Your task to perform on an android device: Search for a custom made wallet Image 0: 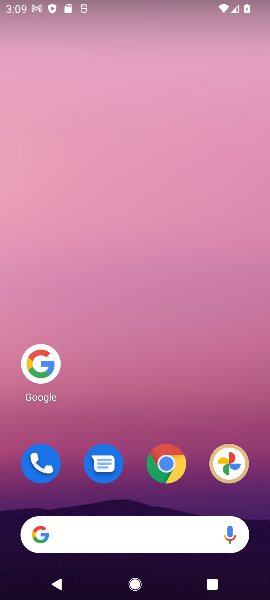
Step 0: click (42, 356)
Your task to perform on an android device: Search for a custom made wallet Image 1: 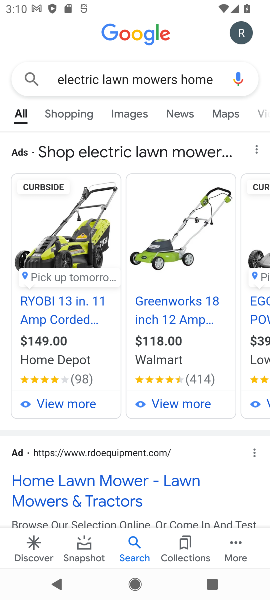
Step 1: click (196, 71)
Your task to perform on an android device: Search for a custom made wallet Image 2: 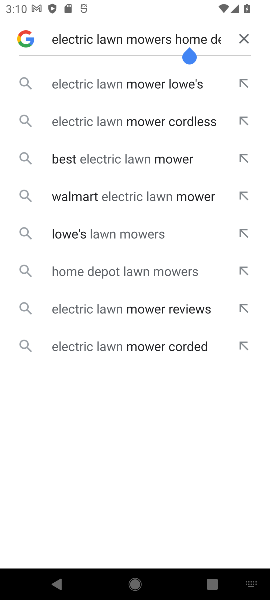
Step 2: click (243, 31)
Your task to perform on an android device: Search for a custom made wallet Image 3: 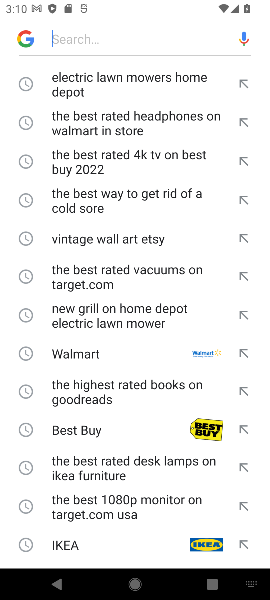
Step 3: drag from (116, 331) to (134, 175)
Your task to perform on an android device: Search for a custom made wallet Image 4: 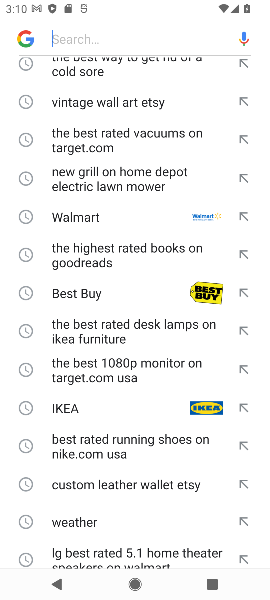
Step 4: click (116, 26)
Your task to perform on an android device: Search for a custom made wallet Image 5: 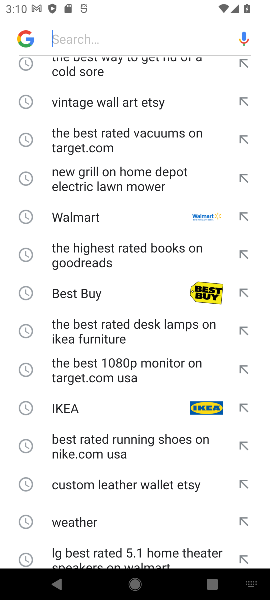
Step 5: type " a custom made wallet "
Your task to perform on an android device: Search for a custom made wallet Image 6: 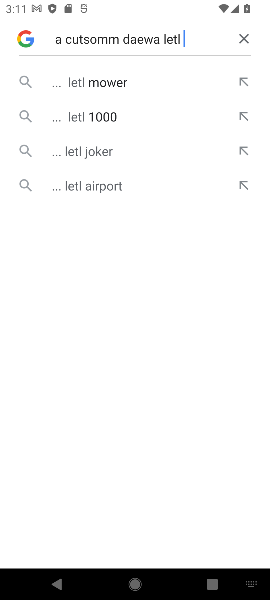
Step 6: click (248, 37)
Your task to perform on an android device: Search for a custom made wallet Image 7: 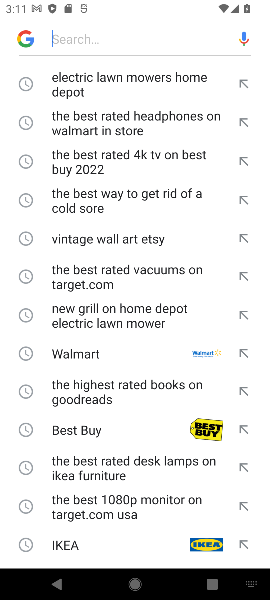
Step 7: click (123, 24)
Your task to perform on an android device: Search for a custom made wallet Image 8: 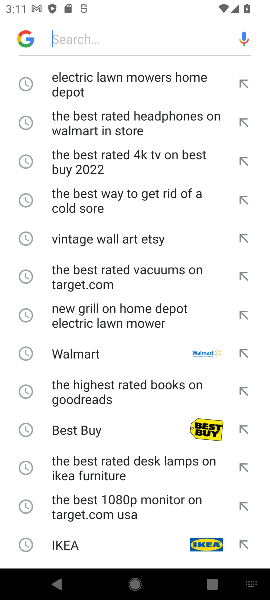
Step 8: type " a custom made wallet "
Your task to perform on an android device: Search for a custom made wallet Image 9: 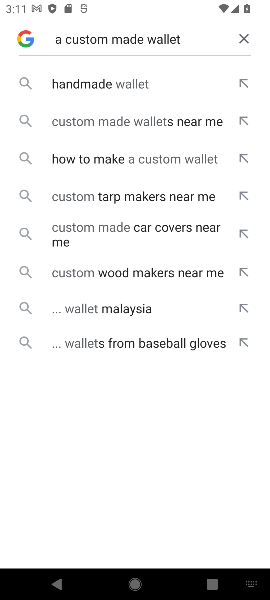
Step 9: click (138, 126)
Your task to perform on an android device: Search for a custom made wallet Image 10: 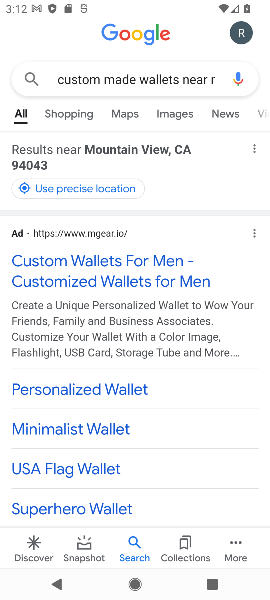
Step 10: click (65, 269)
Your task to perform on an android device: Search for a custom made wallet Image 11: 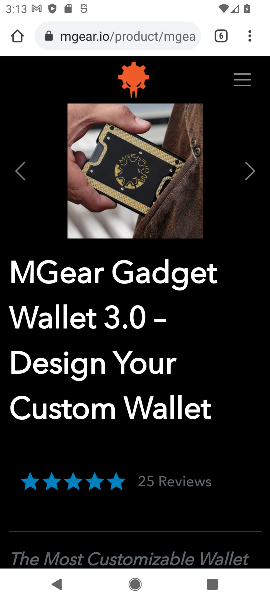
Step 11: task complete